Your task to perform on an android device: open app "Pandora - Music & Podcasts" Image 0: 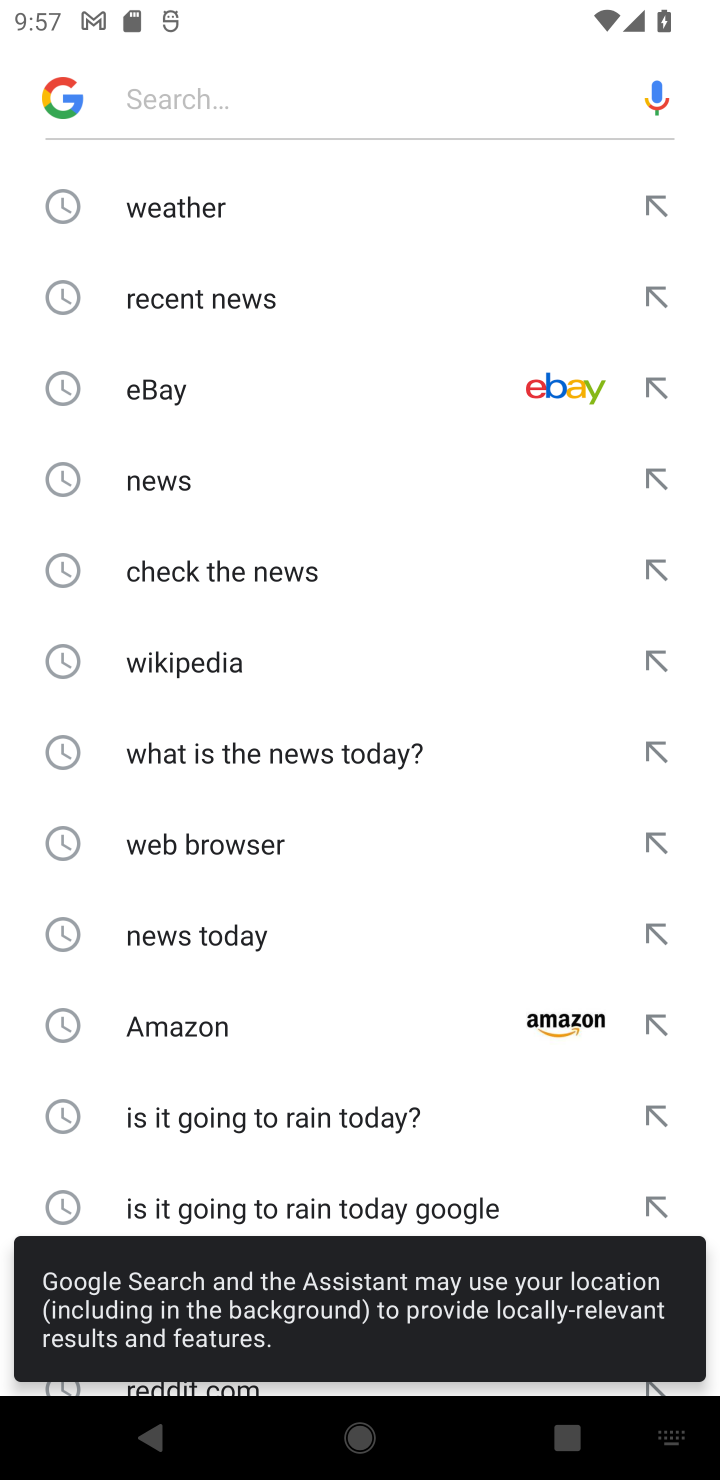
Step 0: press back button
Your task to perform on an android device: open app "Pandora - Music & Podcasts" Image 1: 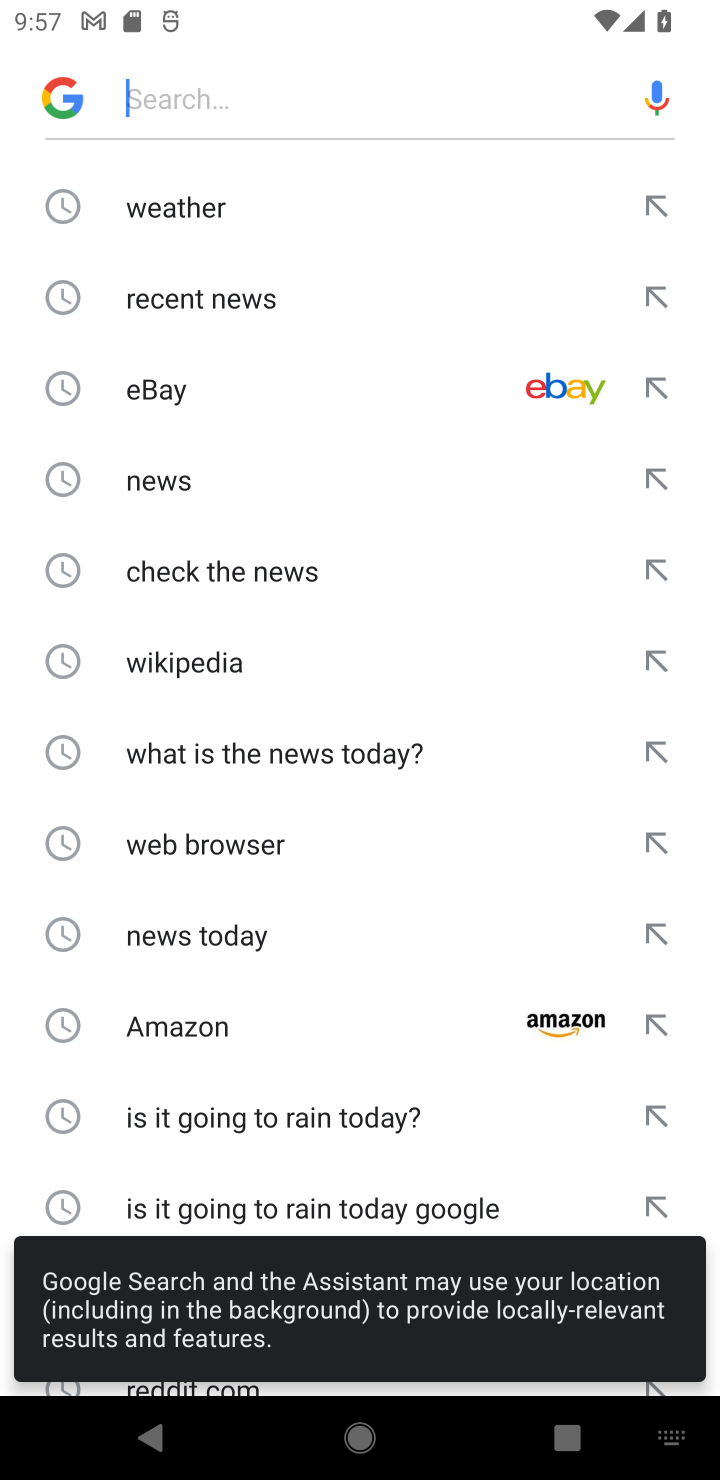
Step 1: press back button
Your task to perform on an android device: open app "Pandora - Music & Podcasts" Image 2: 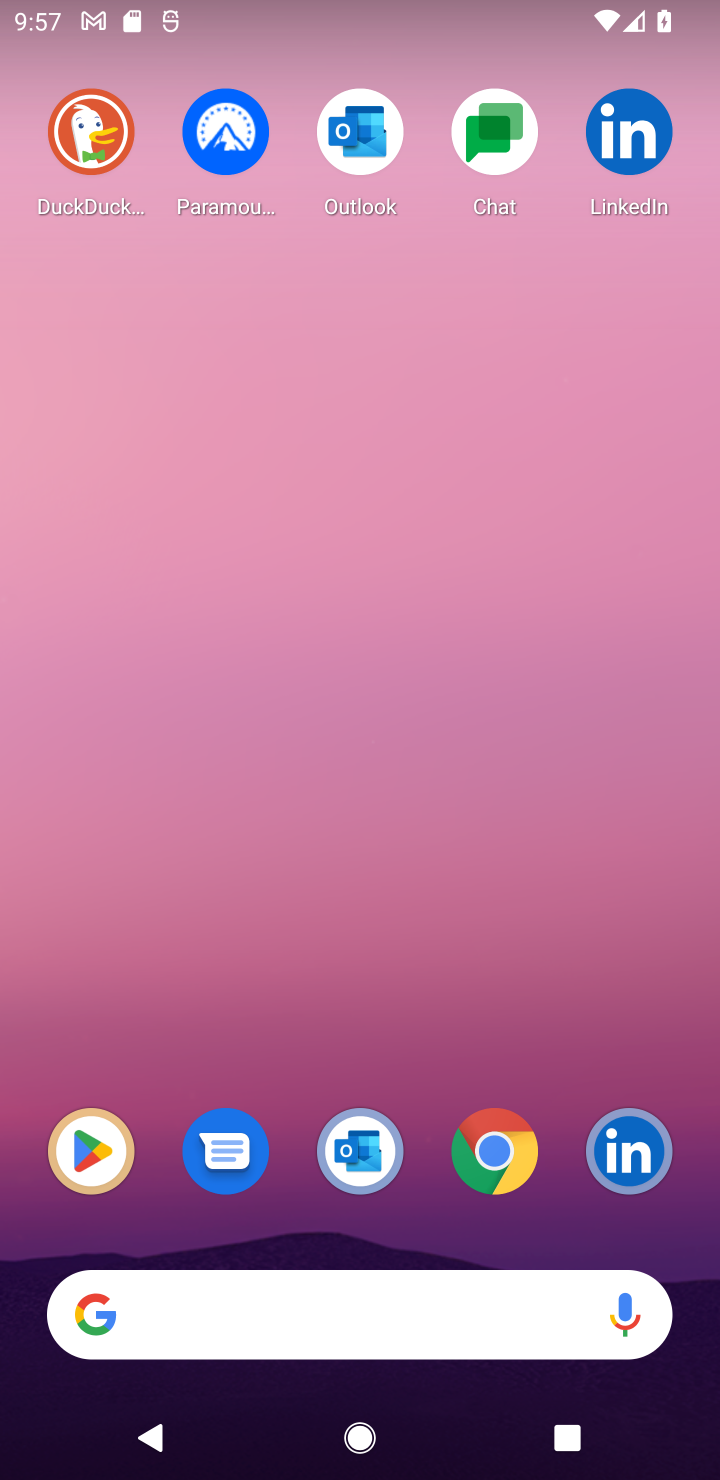
Step 2: drag from (358, 1215) to (333, 85)
Your task to perform on an android device: open app "Pandora - Music & Podcasts" Image 3: 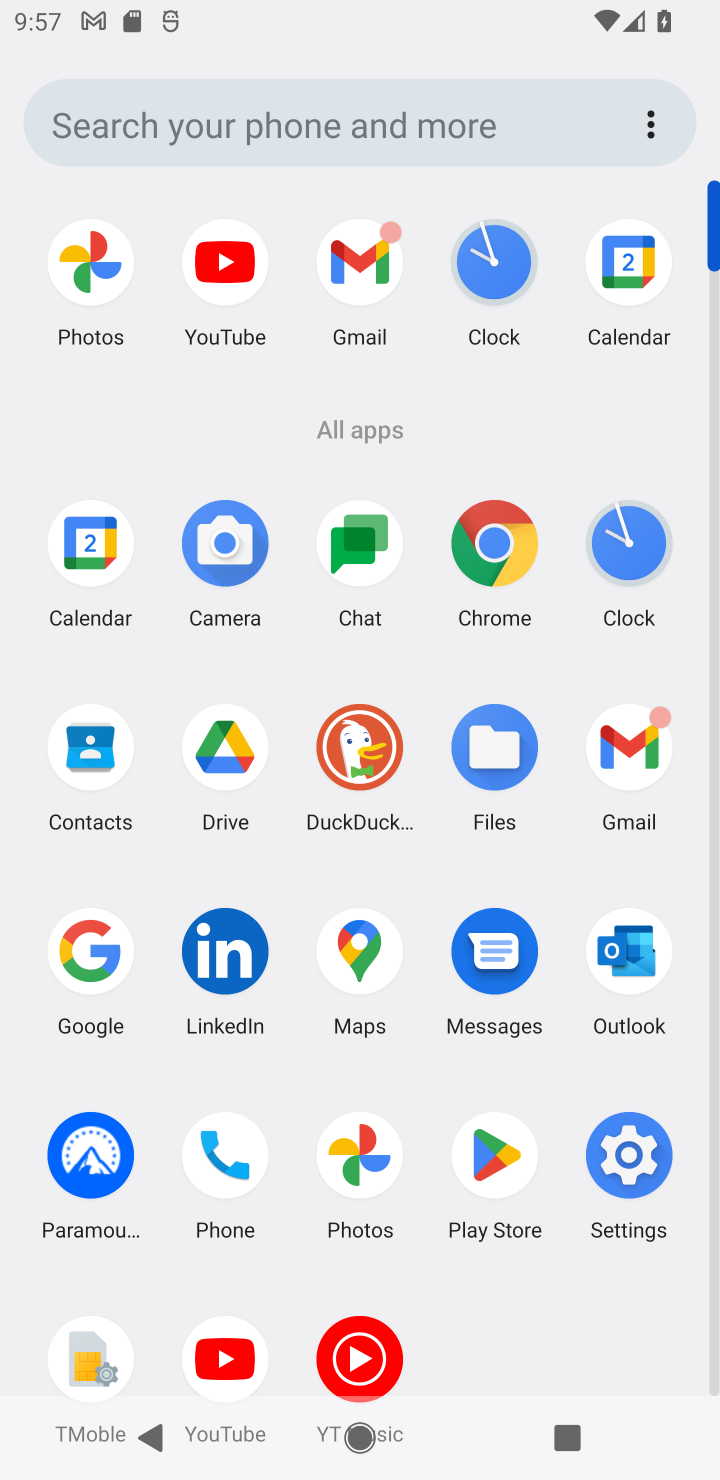
Step 3: click (484, 1155)
Your task to perform on an android device: open app "Pandora - Music & Podcasts" Image 4: 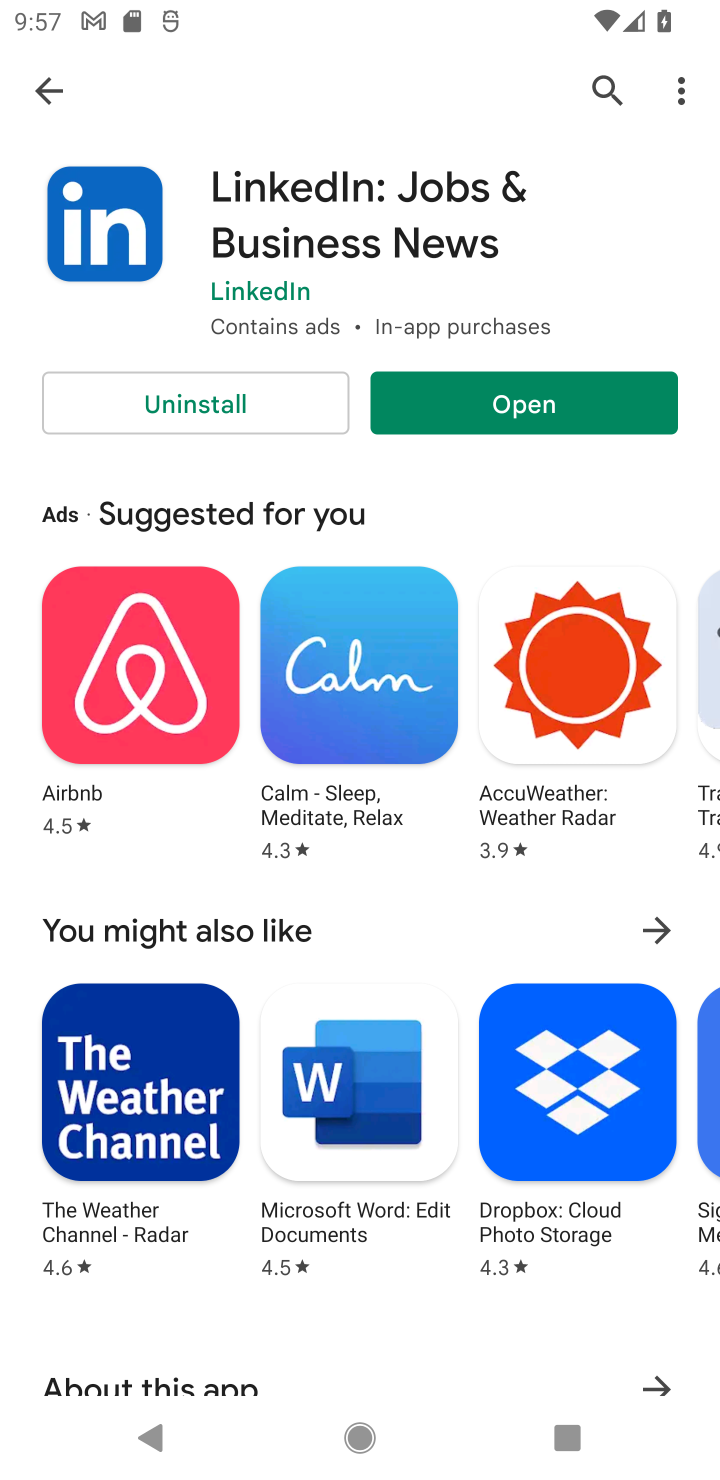
Step 4: click (39, 83)
Your task to perform on an android device: open app "Pandora - Music & Podcasts" Image 5: 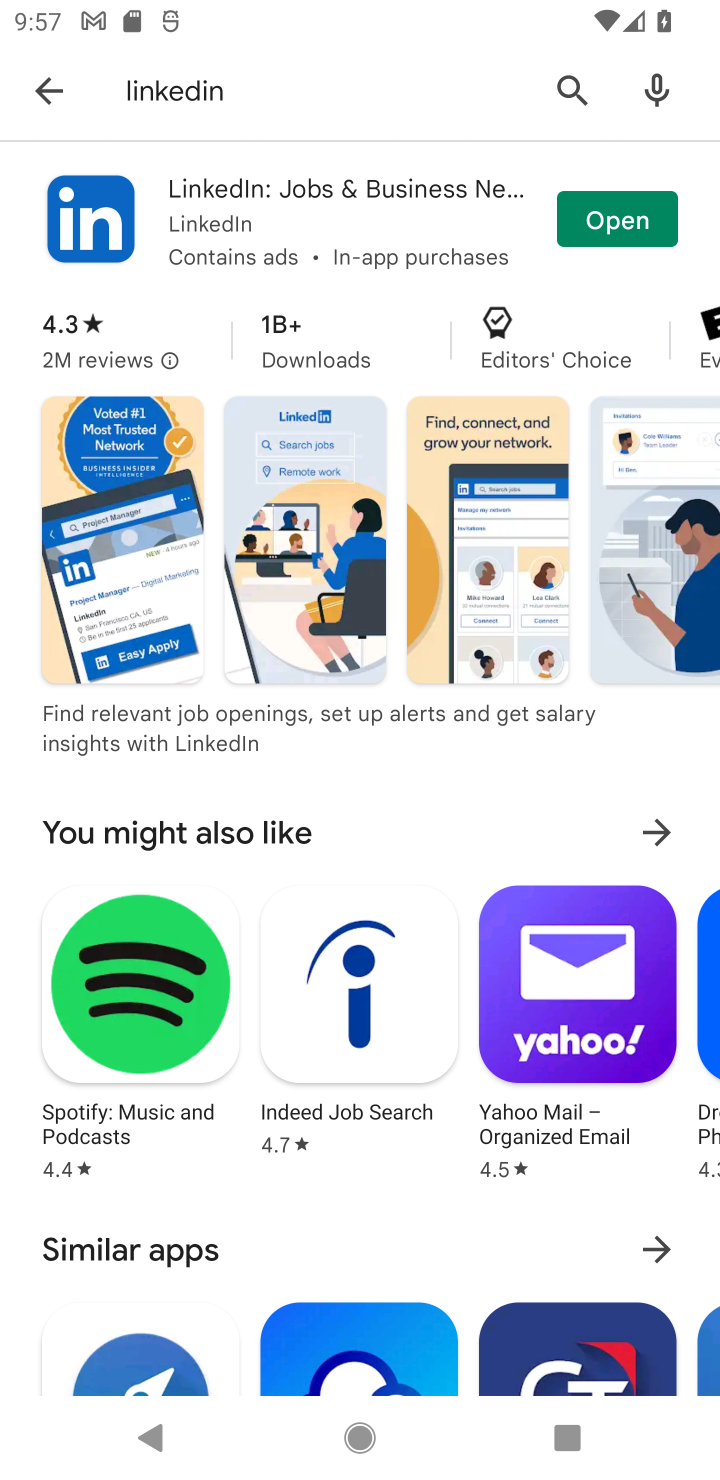
Step 5: click (39, 83)
Your task to perform on an android device: open app "Pandora - Music & Podcasts" Image 6: 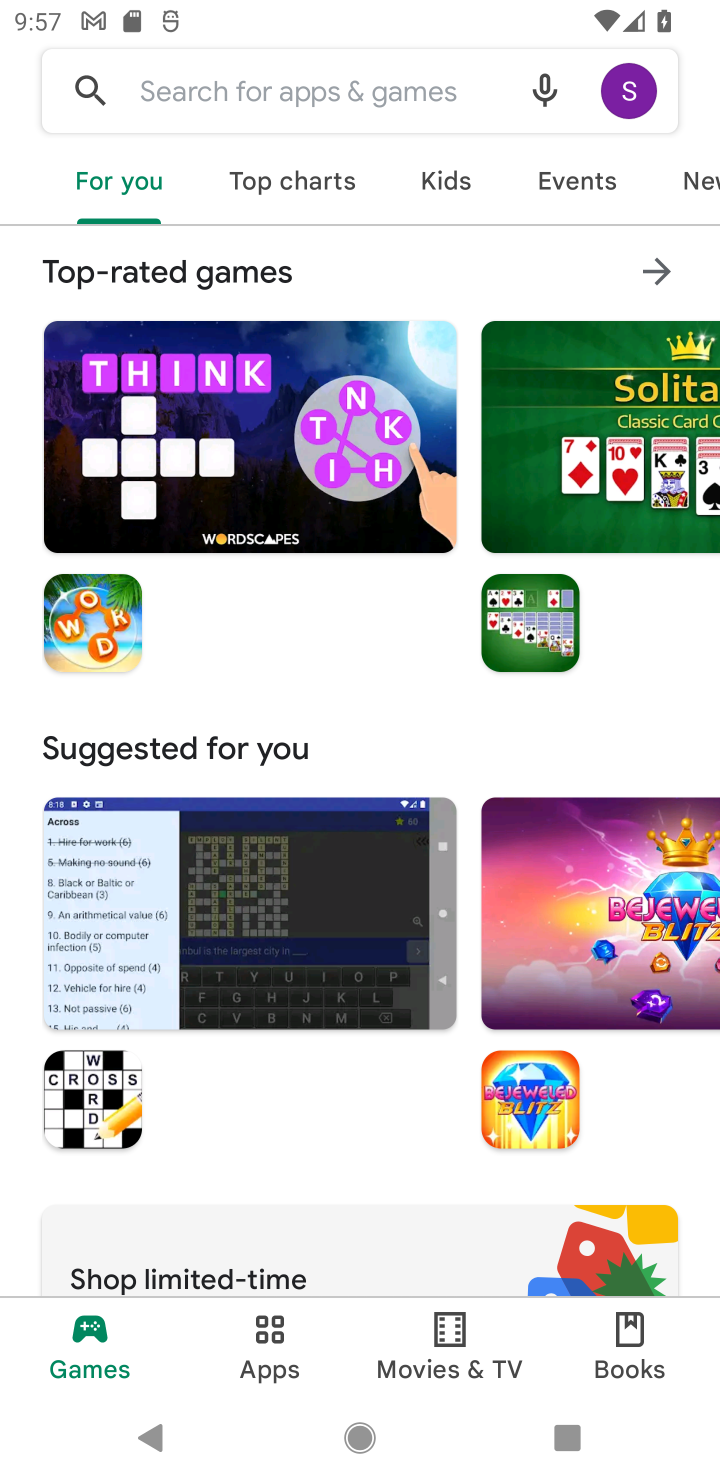
Step 6: click (172, 74)
Your task to perform on an android device: open app "Pandora - Music & Podcasts" Image 7: 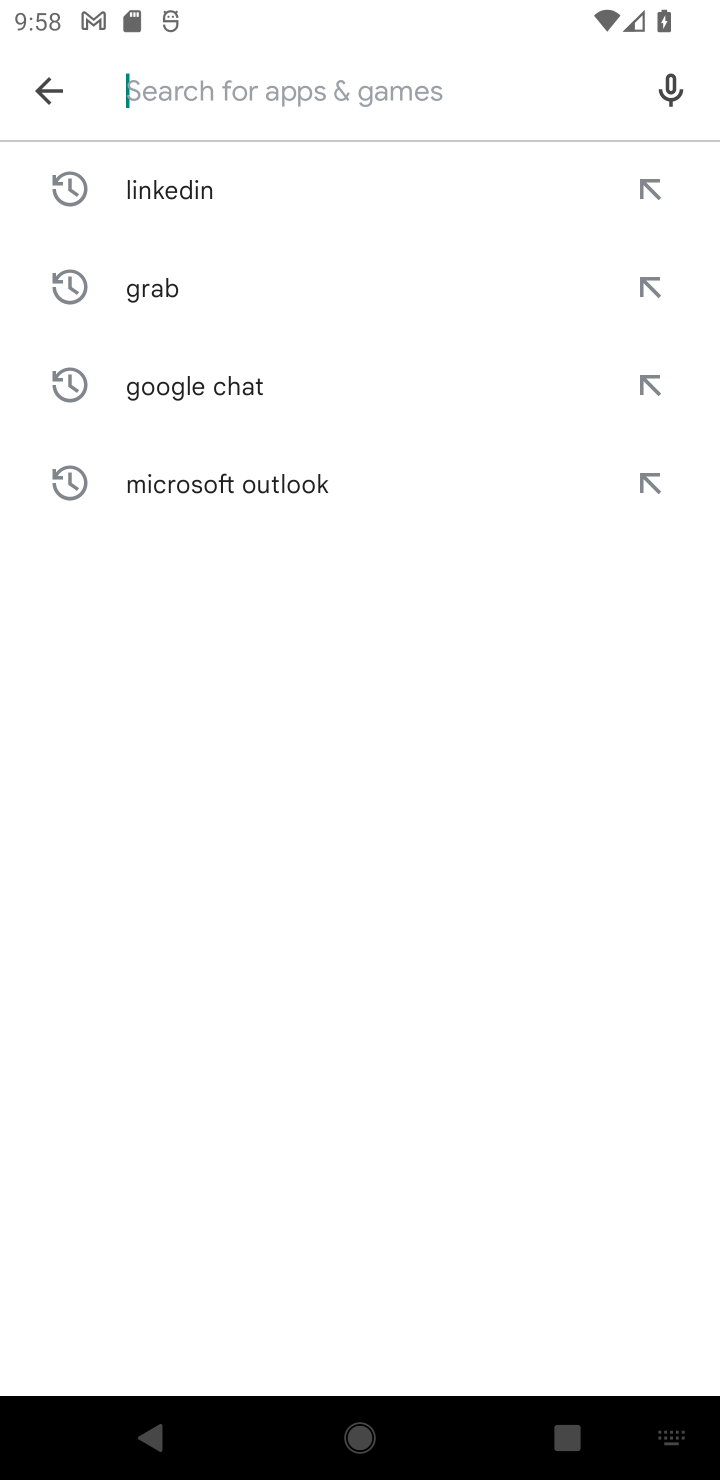
Step 7: type "Pandora"
Your task to perform on an android device: open app "Pandora - Music & Podcasts" Image 8: 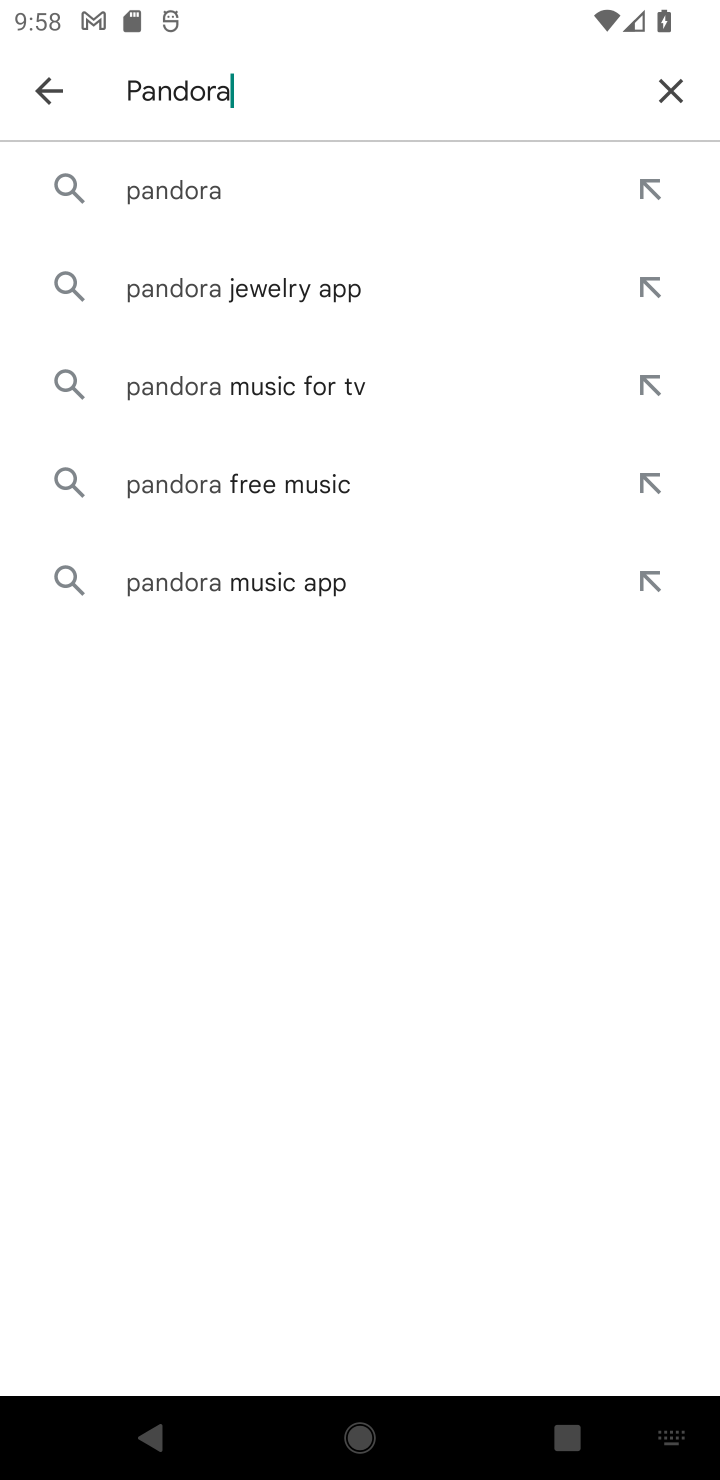
Step 8: click (208, 178)
Your task to perform on an android device: open app "Pandora - Music & Podcasts" Image 9: 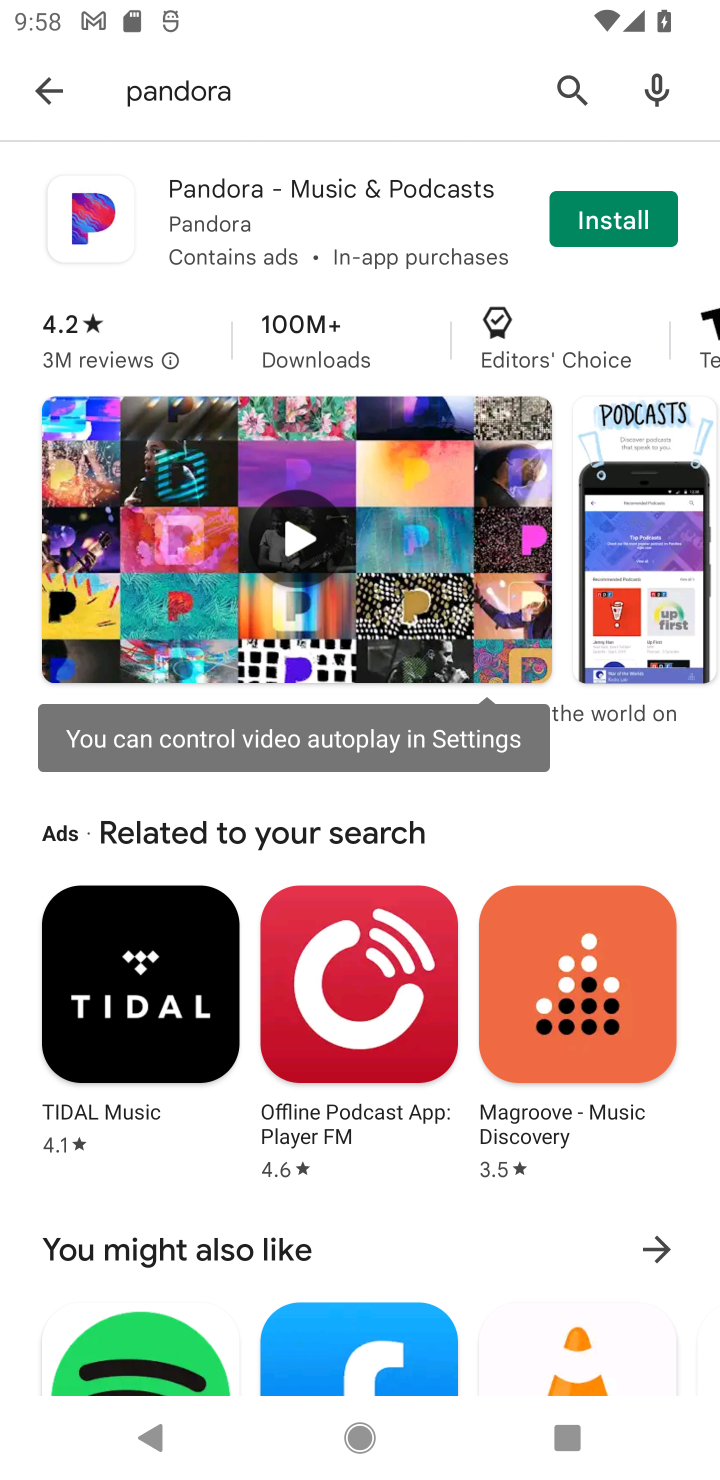
Step 9: task complete